Your task to perform on an android device: Clear all items from cart on newegg. Search for energizer triple a on newegg, select the first entry, add it to the cart, then select checkout. Image 0: 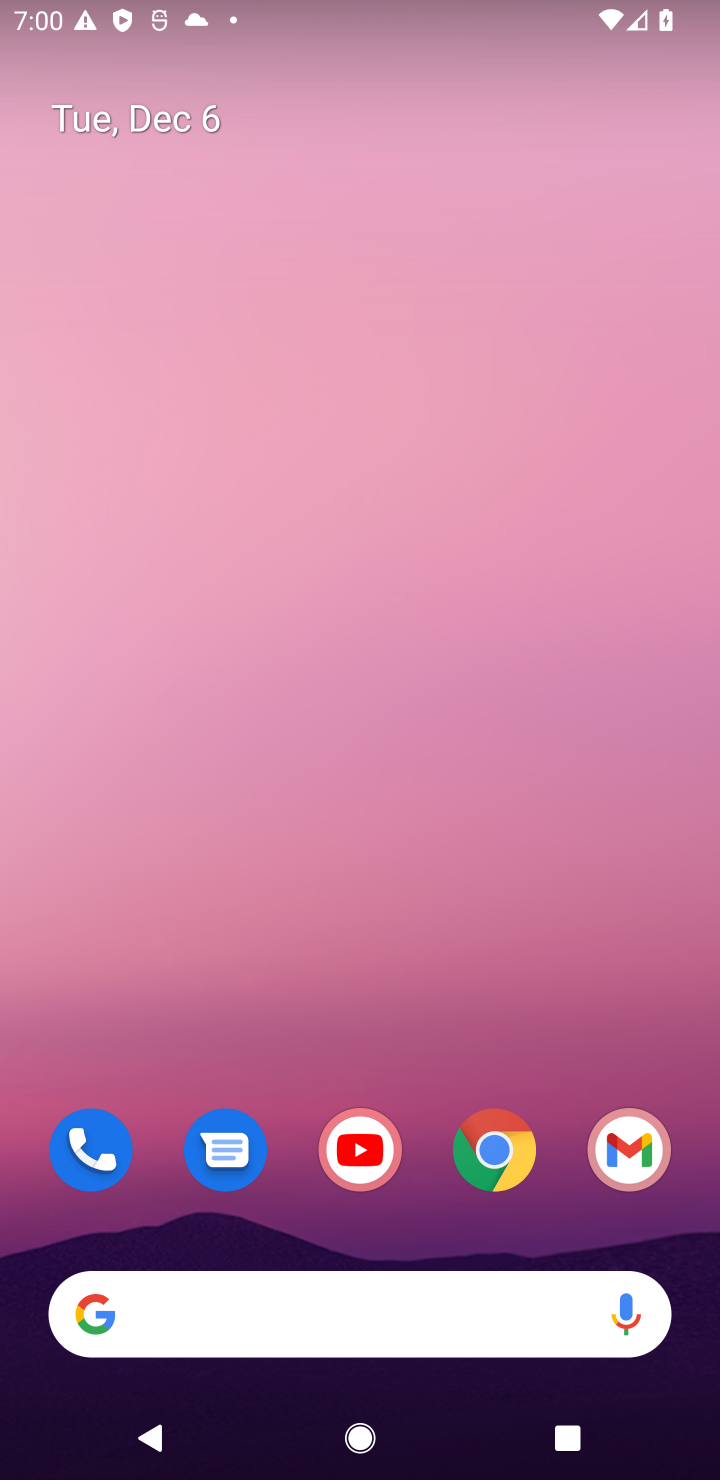
Step 0: click (499, 1173)
Your task to perform on an android device: Clear all items from cart on newegg. Search for energizer triple a on newegg, select the first entry, add it to the cart, then select checkout. Image 1: 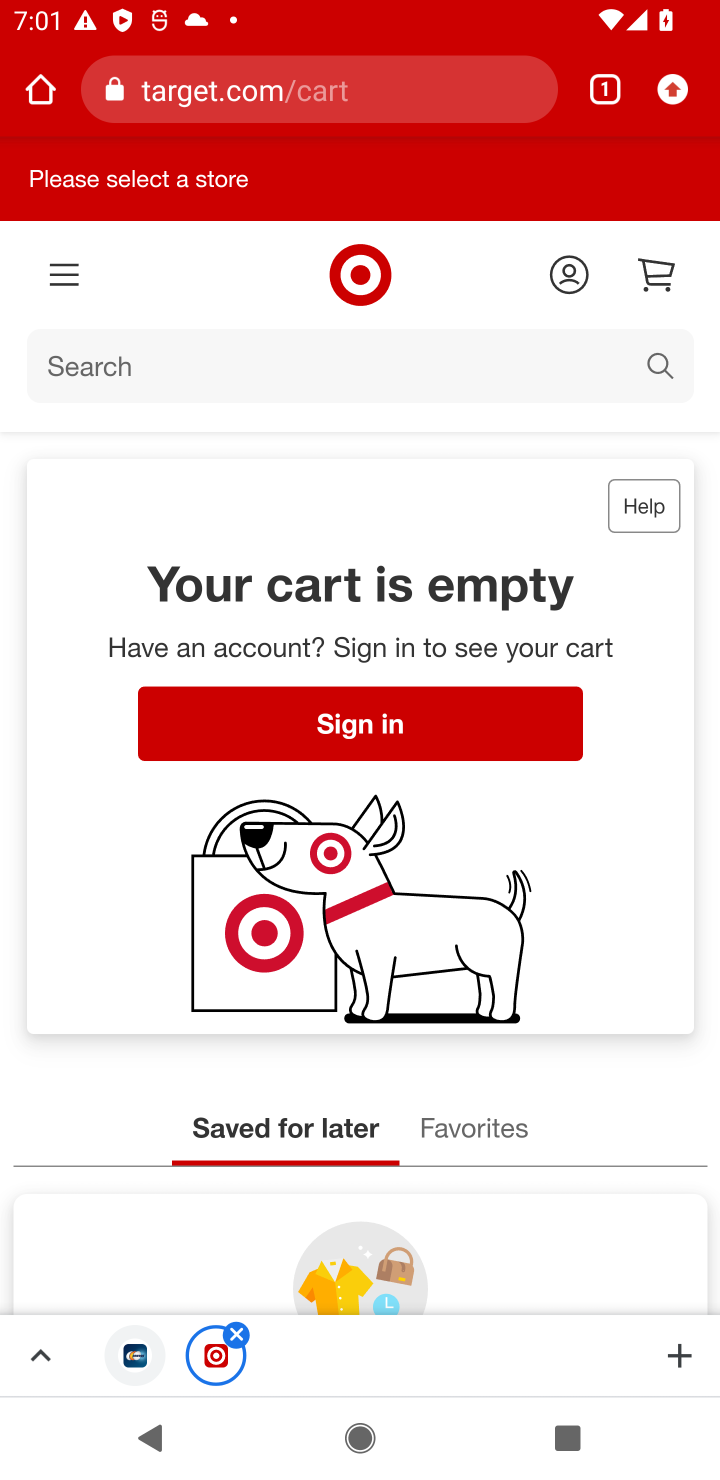
Step 1: click (267, 92)
Your task to perform on an android device: Clear all items from cart on newegg. Search for energizer triple a on newegg, select the first entry, add it to the cart, then select checkout. Image 2: 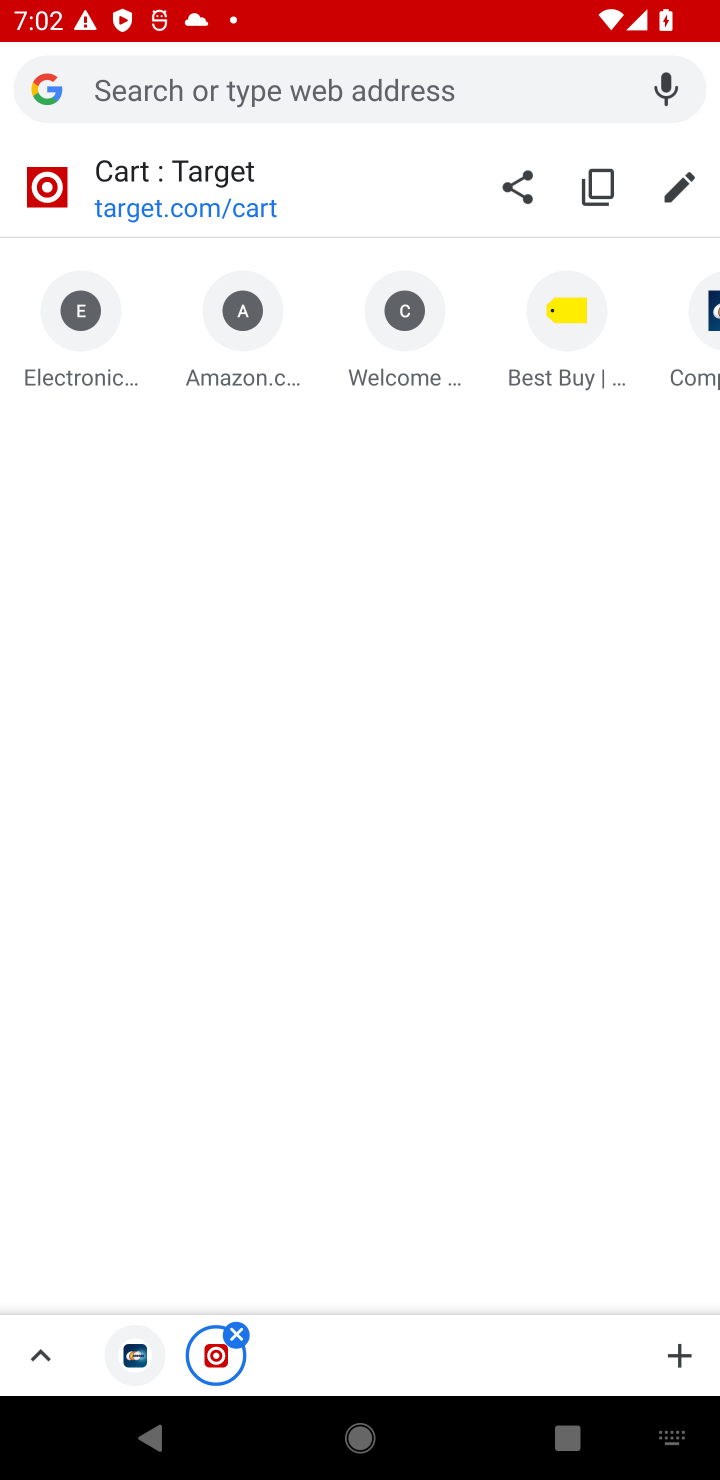
Step 2: type "newegg.com"
Your task to perform on an android device: Clear all items from cart on newegg. Search for energizer triple a on newegg, select the first entry, add it to the cart, then select checkout. Image 3: 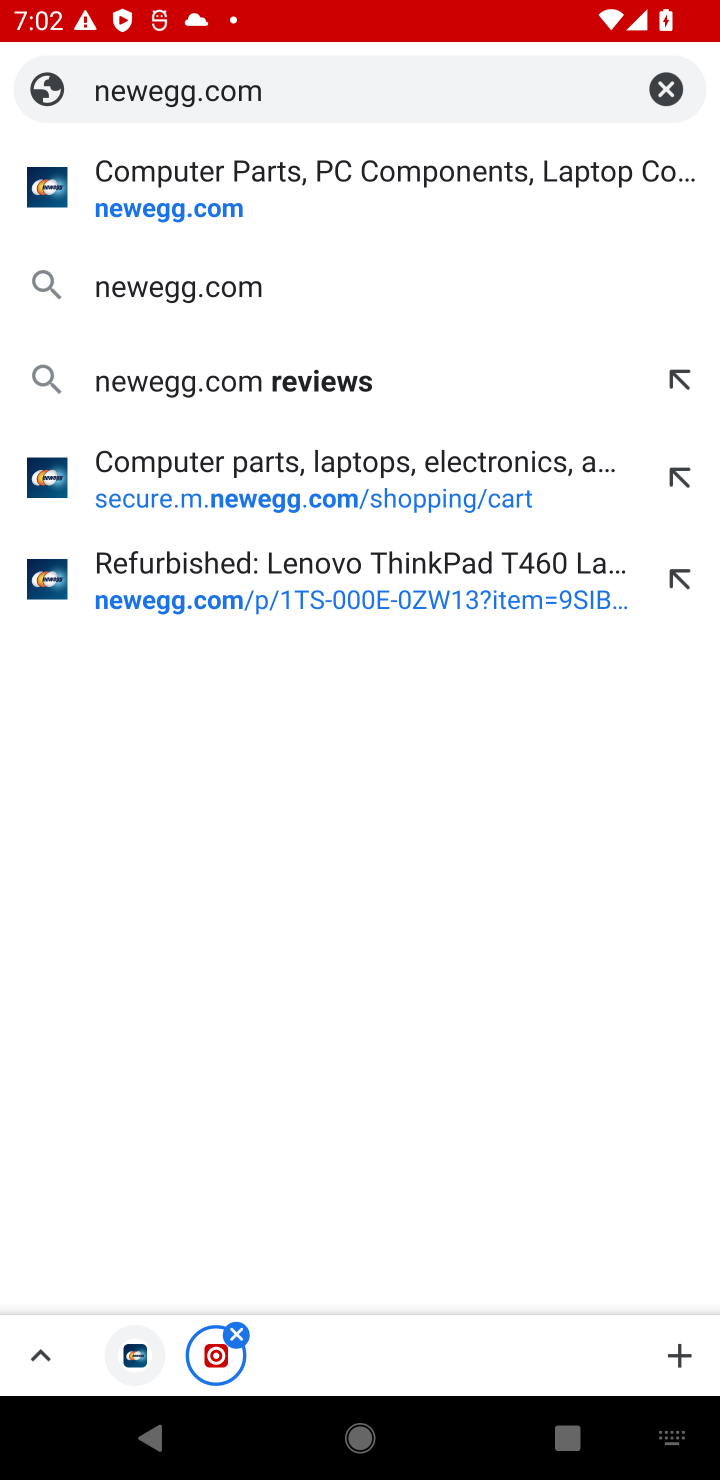
Step 3: click (135, 195)
Your task to perform on an android device: Clear all items from cart on newegg. Search for energizer triple a on newegg, select the first entry, add it to the cart, then select checkout. Image 4: 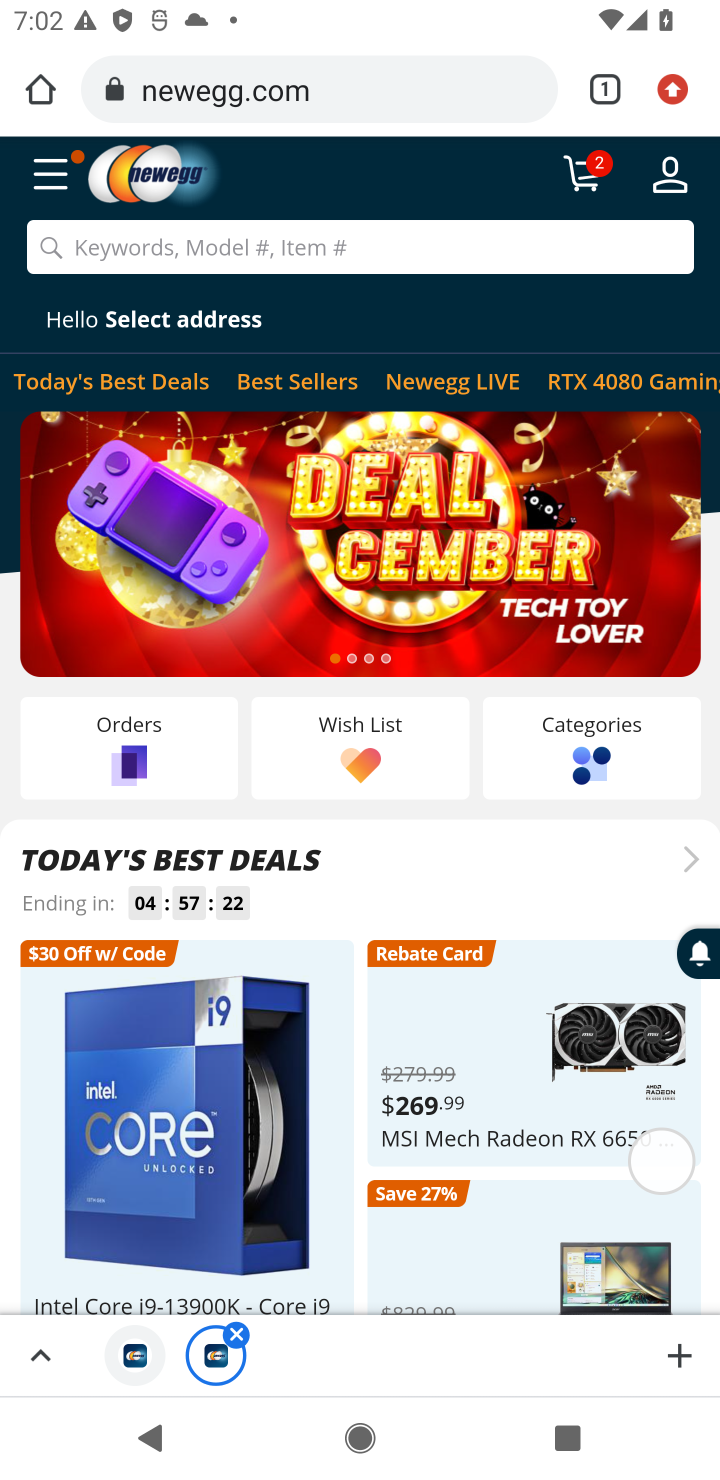
Step 4: click (593, 165)
Your task to perform on an android device: Clear all items from cart on newegg. Search for energizer triple a on newegg, select the first entry, add it to the cart, then select checkout. Image 5: 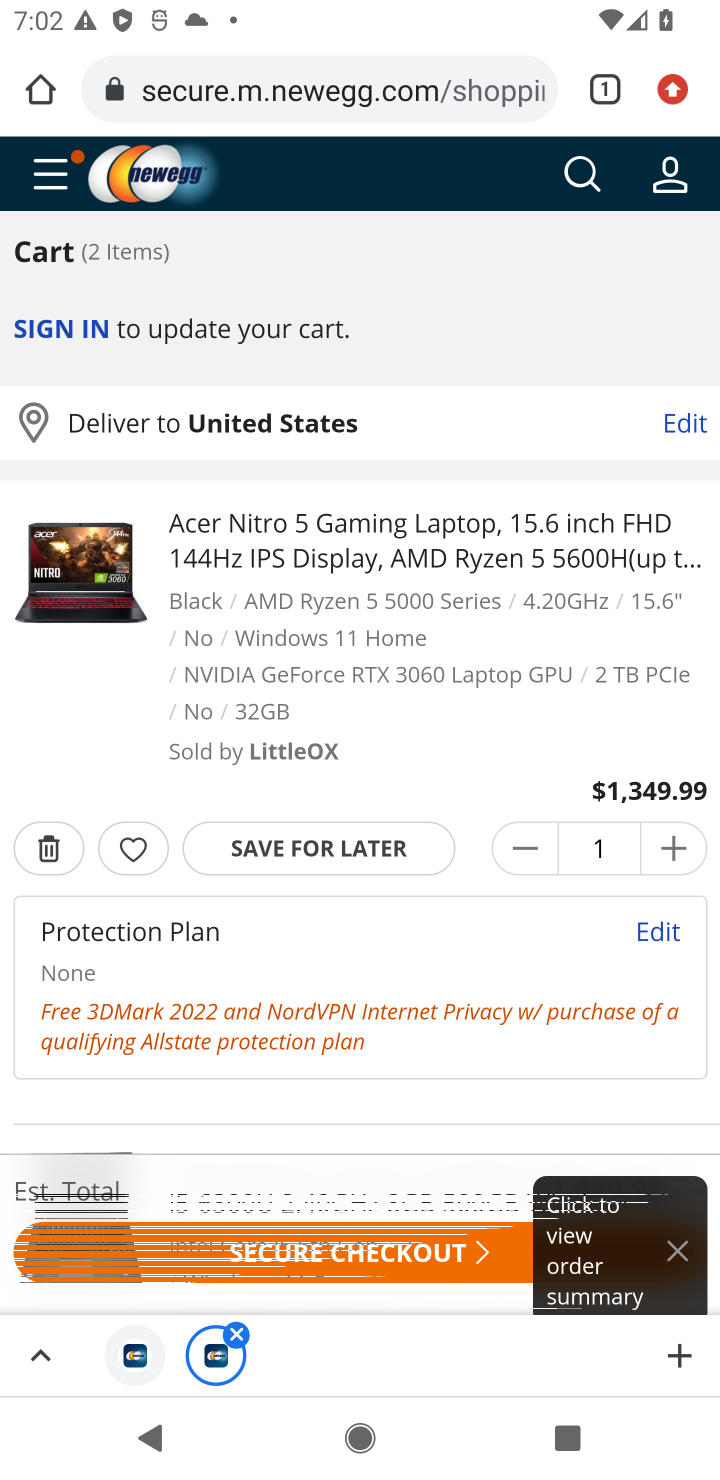
Step 5: click (46, 857)
Your task to perform on an android device: Clear all items from cart on newegg. Search for energizer triple a on newegg, select the first entry, add it to the cart, then select checkout. Image 6: 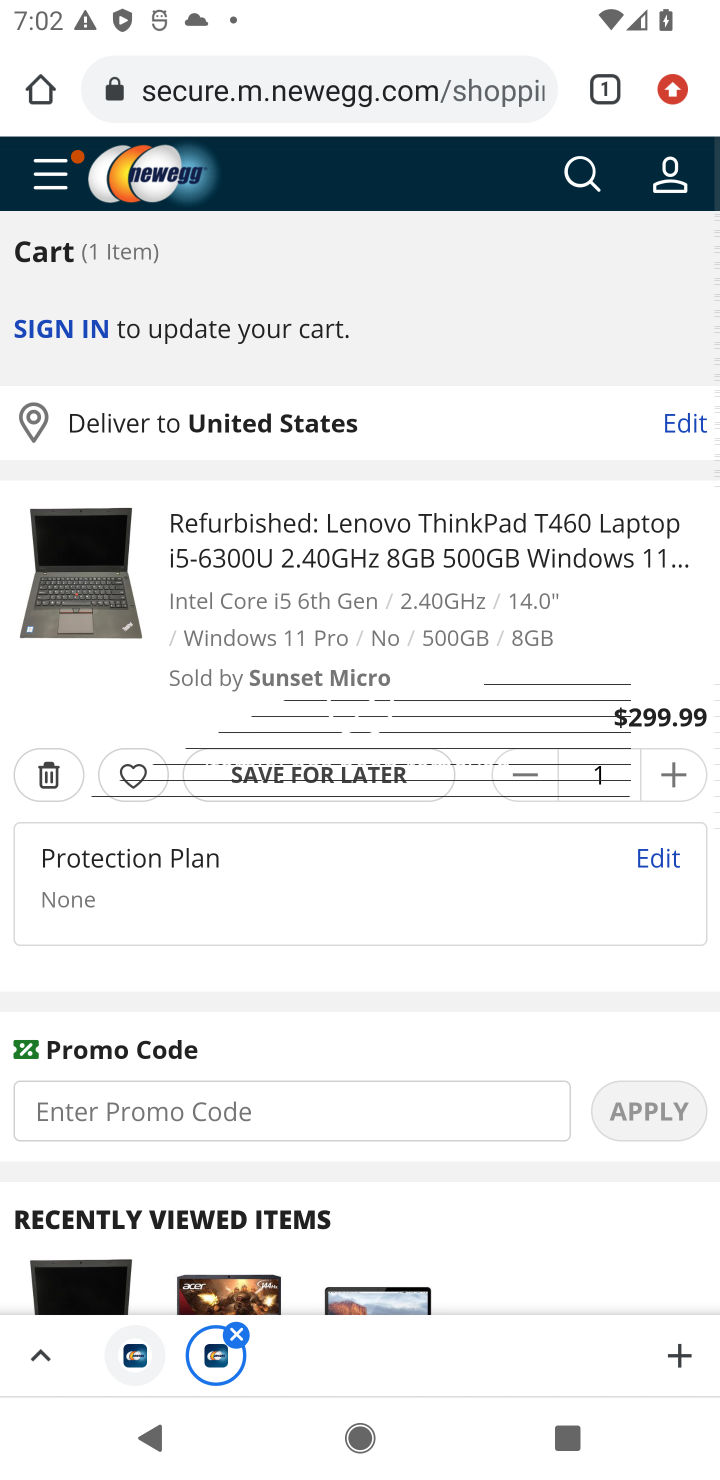
Step 6: click (48, 778)
Your task to perform on an android device: Clear all items from cart on newegg. Search for energizer triple a on newegg, select the first entry, add it to the cart, then select checkout. Image 7: 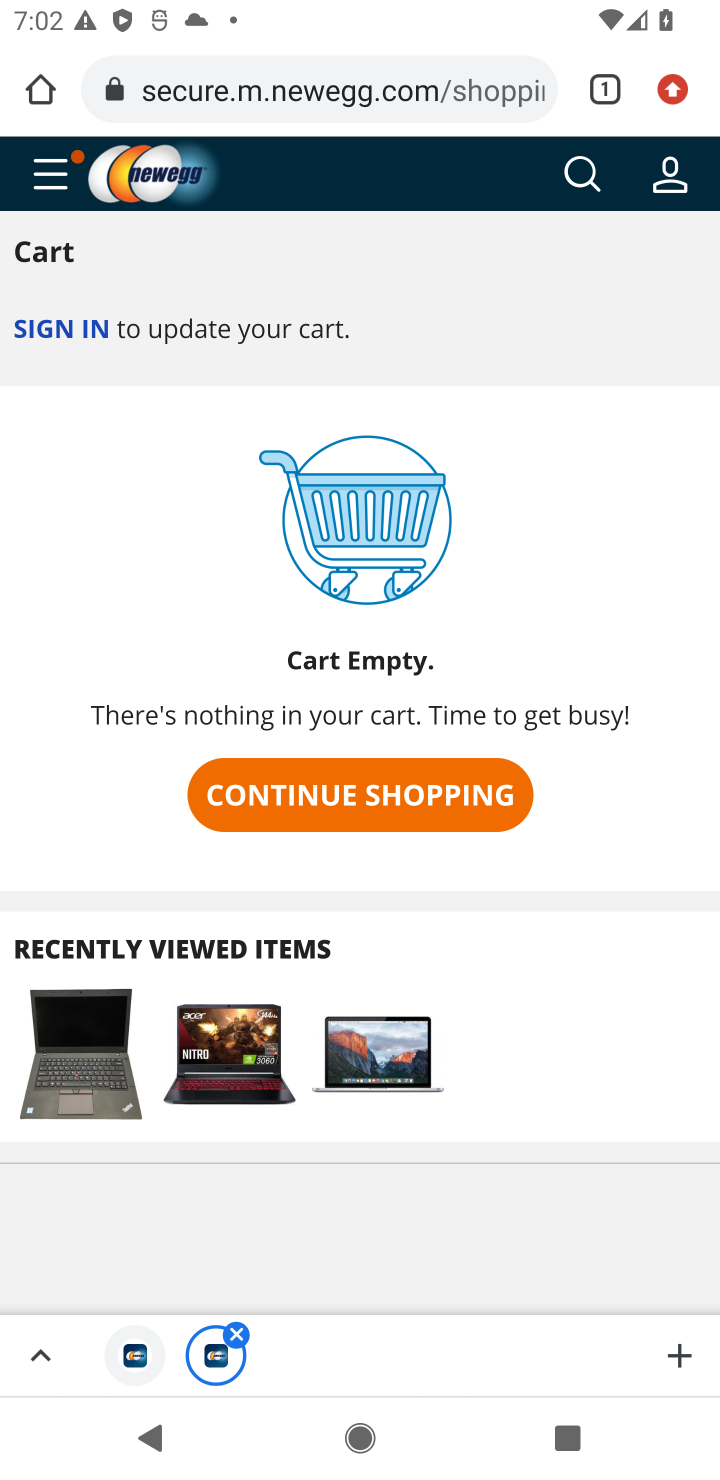
Step 7: click (576, 161)
Your task to perform on an android device: Clear all items from cart on newegg. Search for energizer triple a on newegg, select the first entry, add it to the cart, then select checkout. Image 8: 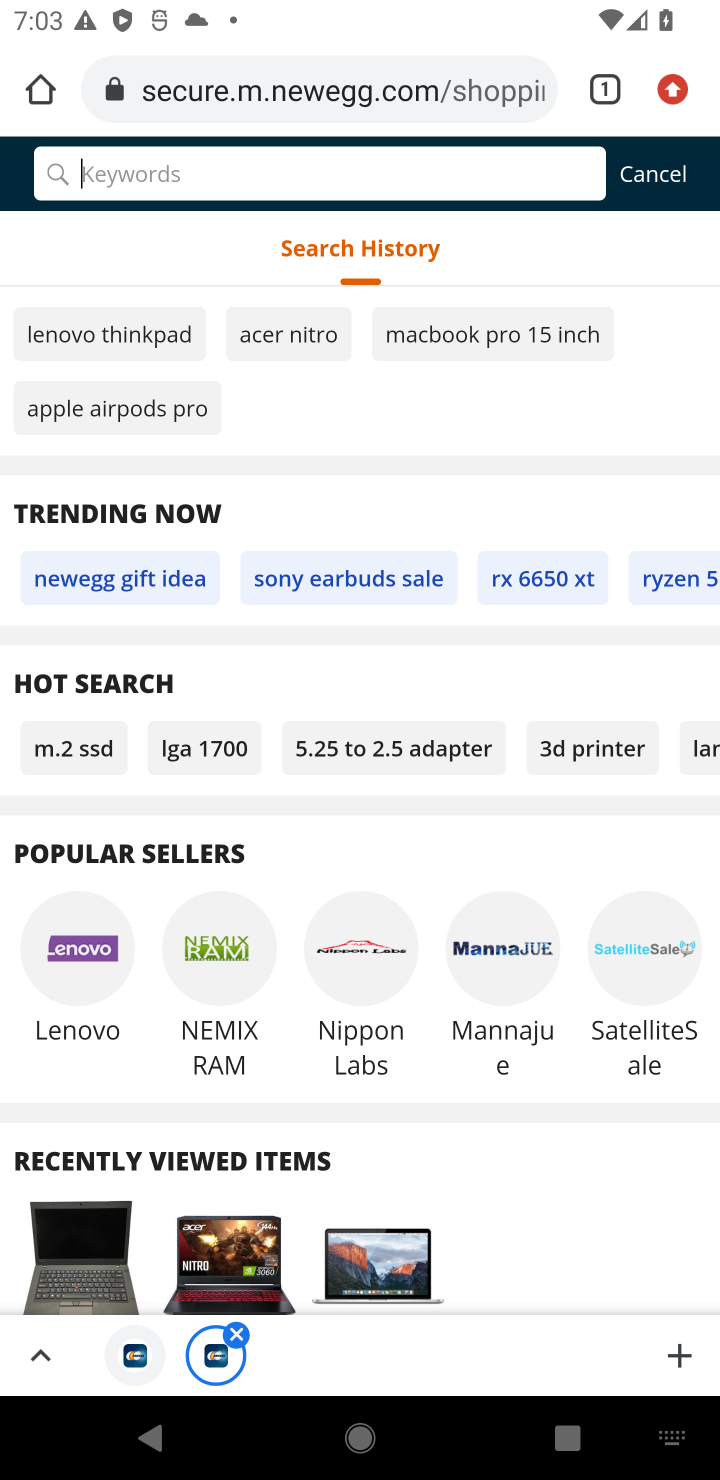
Step 8: type "energizer triple a "
Your task to perform on an android device: Clear all items from cart on newegg. Search for energizer triple a on newegg, select the first entry, add it to the cart, then select checkout. Image 9: 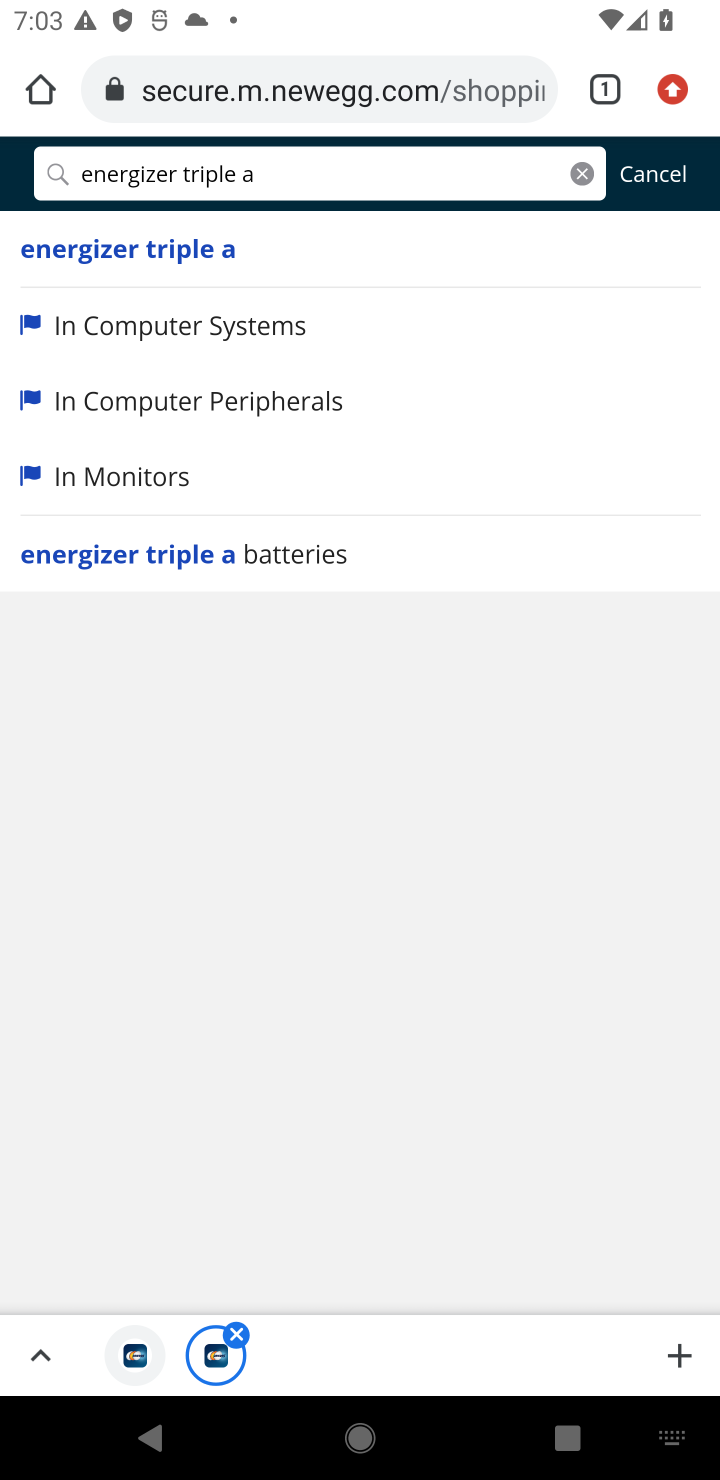
Step 9: click (90, 261)
Your task to perform on an android device: Clear all items from cart on newegg. Search for energizer triple a on newegg, select the first entry, add it to the cart, then select checkout. Image 10: 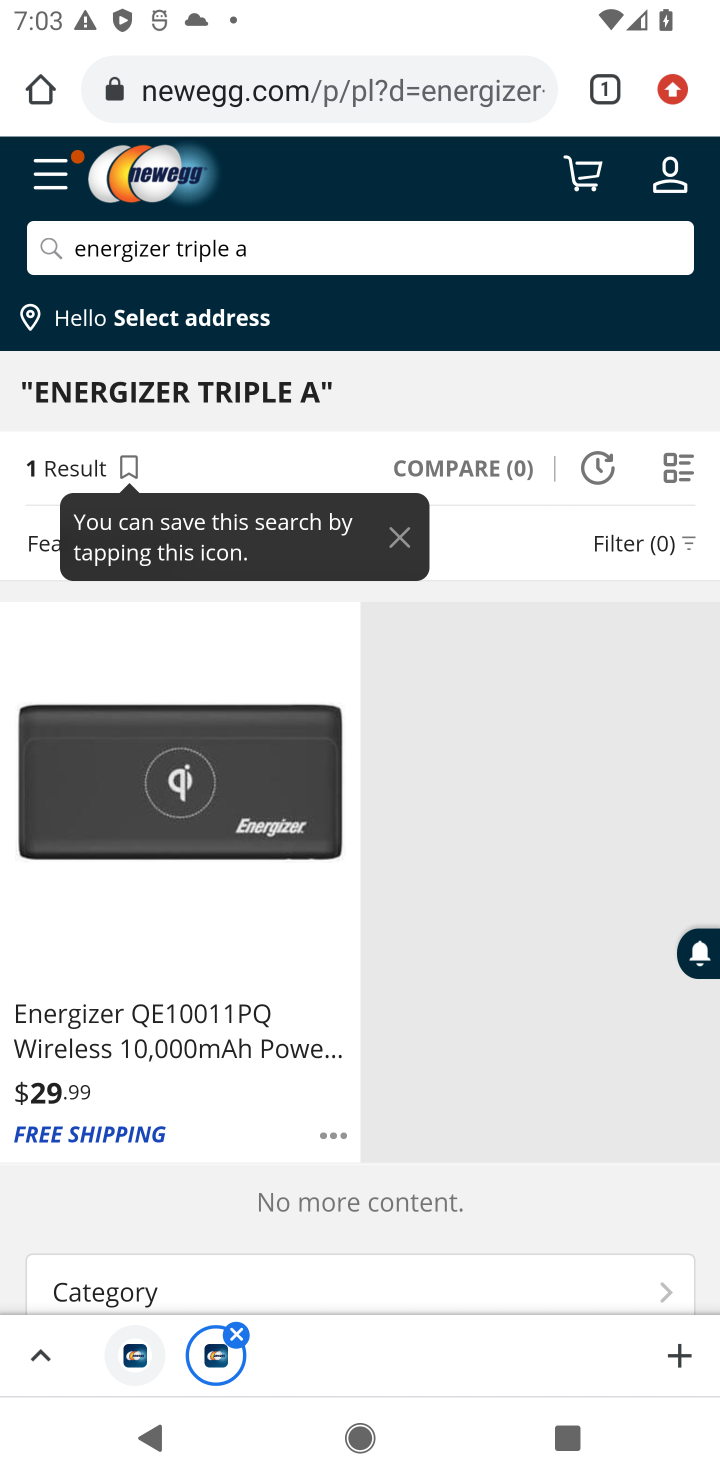
Step 10: task complete